Your task to perform on an android device: When is my next meeting? Image 0: 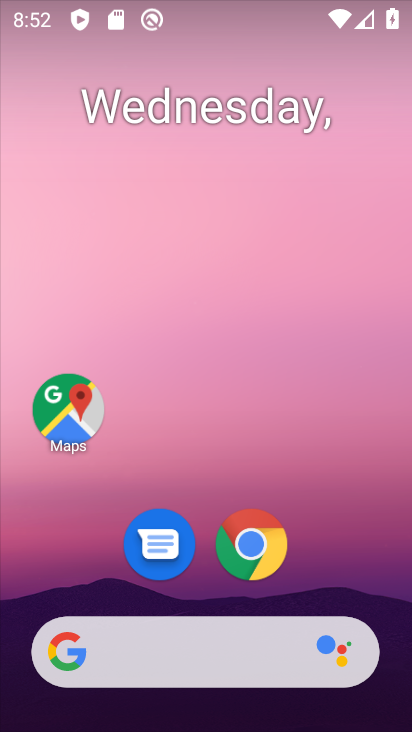
Step 0: drag from (150, 643) to (279, 35)
Your task to perform on an android device: When is my next meeting? Image 1: 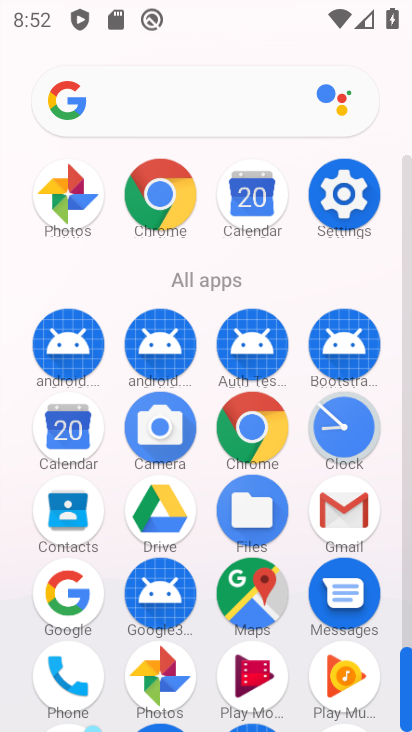
Step 1: click (254, 203)
Your task to perform on an android device: When is my next meeting? Image 2: 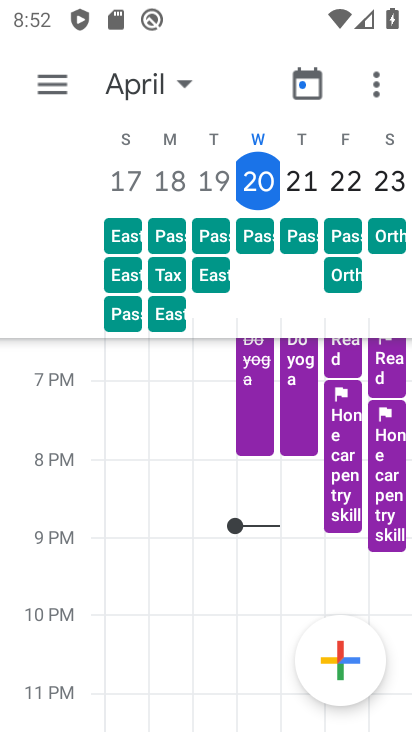
Step 2: click (51, 86)
Your task to perform on an android device: When is my next meeting? Image 3: 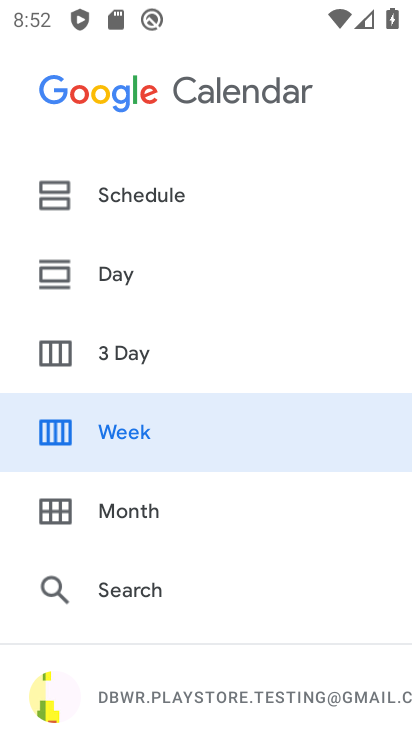
Step 3: click (115, 187)
Your task to perform on an android device: When is my next meeting? Image 4: 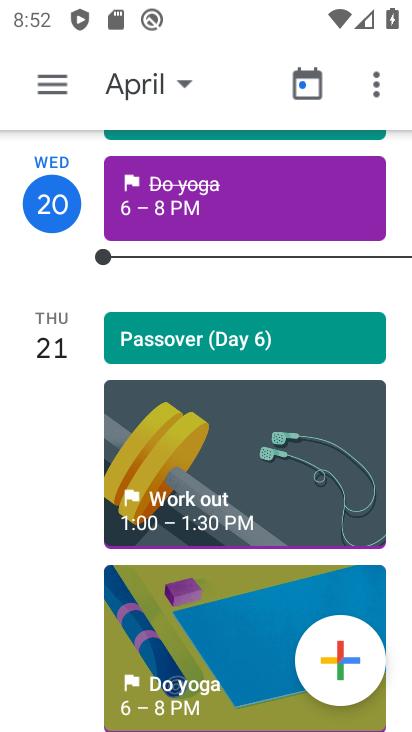
Step 4: task complete